Your task to perform on an android device: toggle notifications settings in the gmail app Image 0: 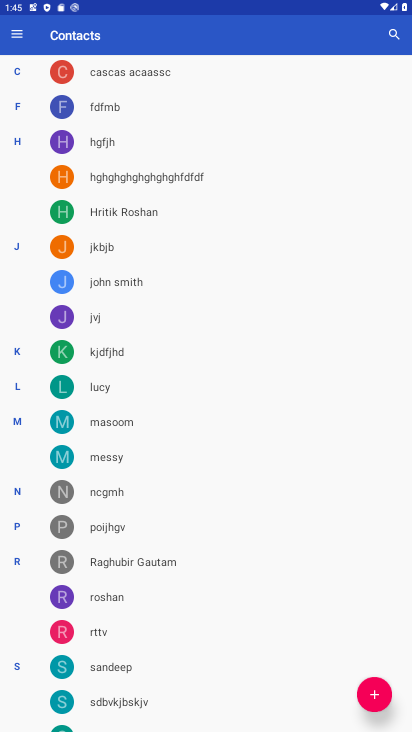
Step 0: press home button
Your task to perform on an android device: toggle notifications settings in the gmail app Image 1: 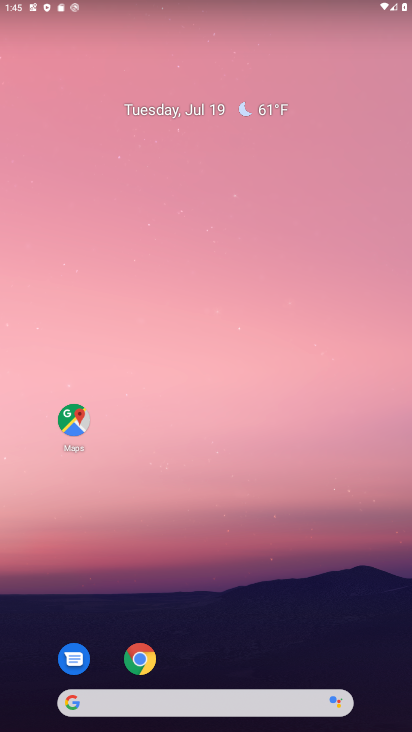
Step 1: drag from (315, 600) to (382, 306)
Your task to perform on an android device: toggle notifications settings in the gmail app Image 2: 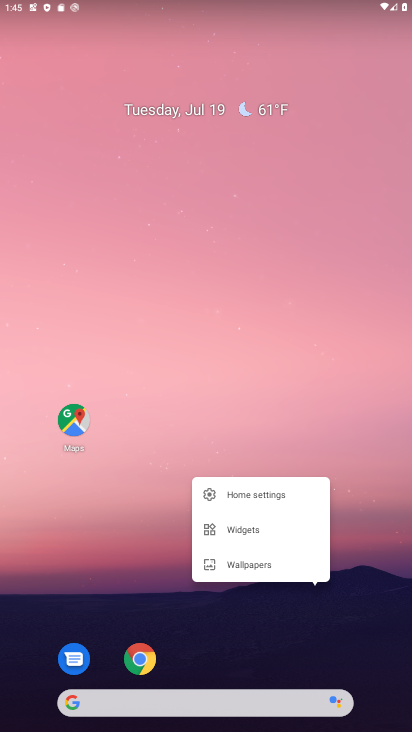
Step 2: drag from (187, 633) to (179, 80)
Your task to perform on an android device: toggle notifications settings in the gmail app Image 3: 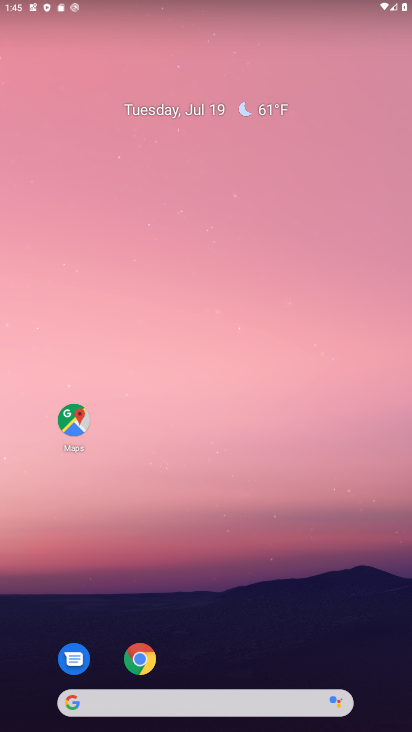
Step 3: drag from (316, 588) to (270, 0)
Your task to perform on an android device: toggle notifications settings in the gmail app Image 4: 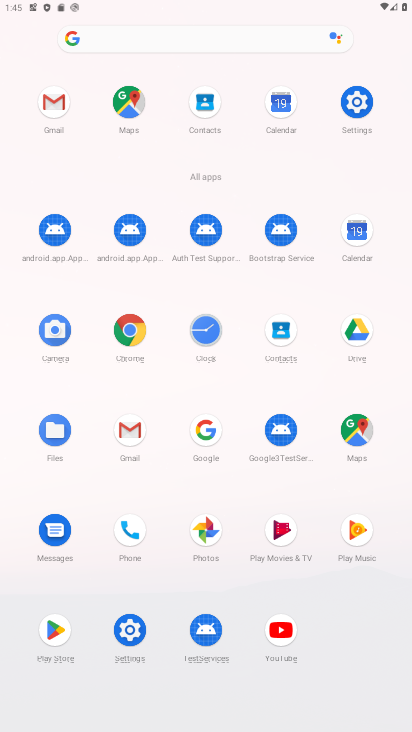
Step 4: click (132, 433)
Your task to perform on an android device: toggle notifications settings in the gmail app Image 5: 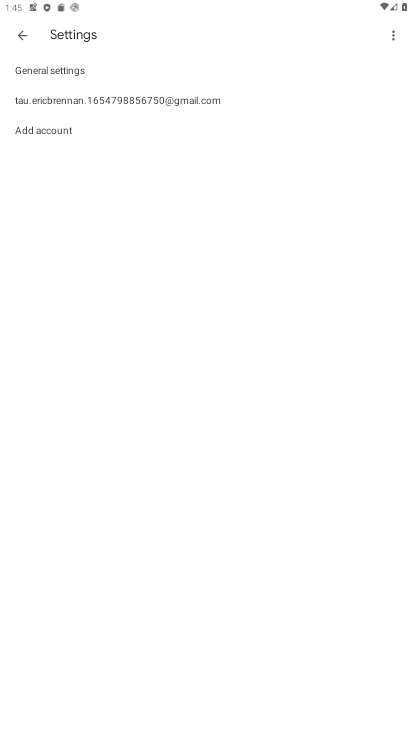
Step 5: click (74, 95)
Your task to perform on an android device: toggle notifications settings in the gmail app Image 6: 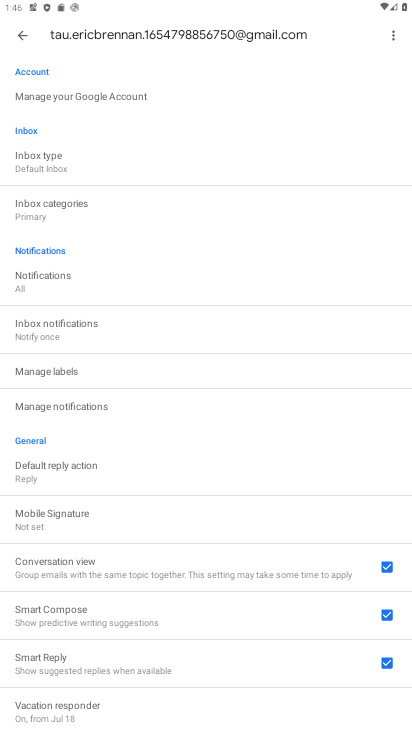
Step 6: click (82, 279)
Your task to perform on an android device: toggle notifications settings in the gmail app Image 7: 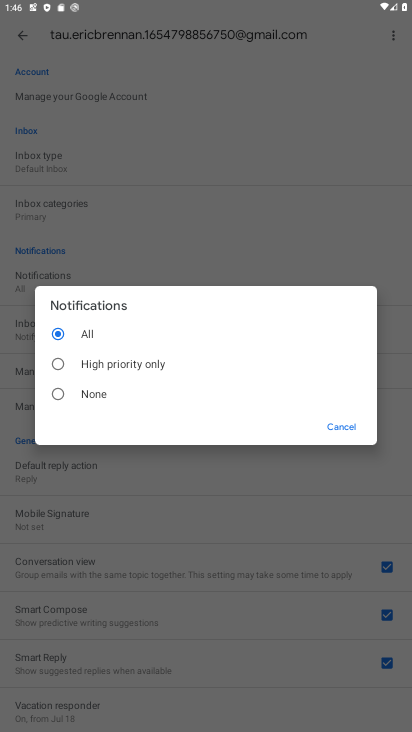
Step 7: click (90, 400)
Your task to perform on an android device: toggle notifications settings in the gmail app Image 8: 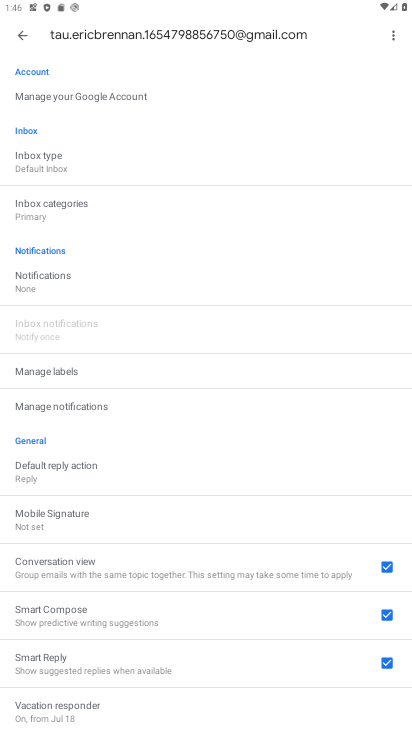
Step 8: click (49, 404)
Your task to perform on an android device: toggle notifications settings in the gmail app Image 9: 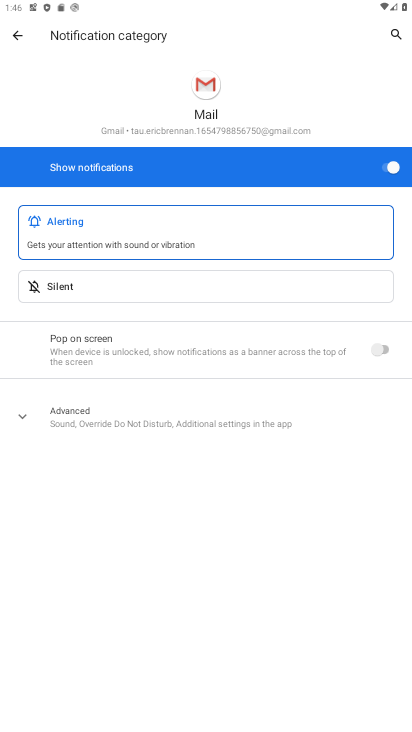
Step 9: click (385, 165)
Your task to perform on an android device: toggle notifications settings in the gmail app Image 10: 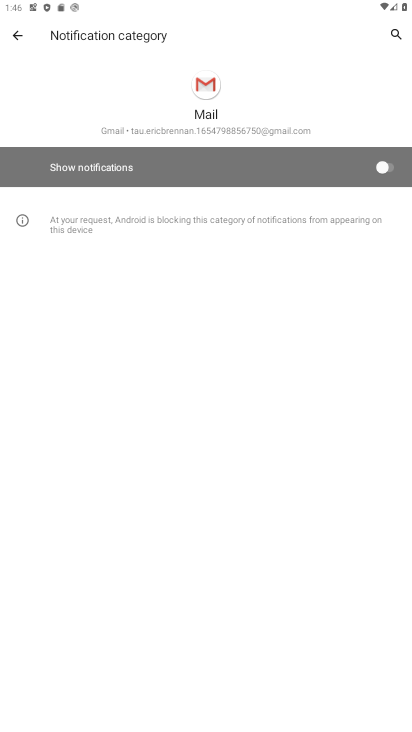
Step 10: task complete